Your task to perform on an android device: check data usage Image 0: 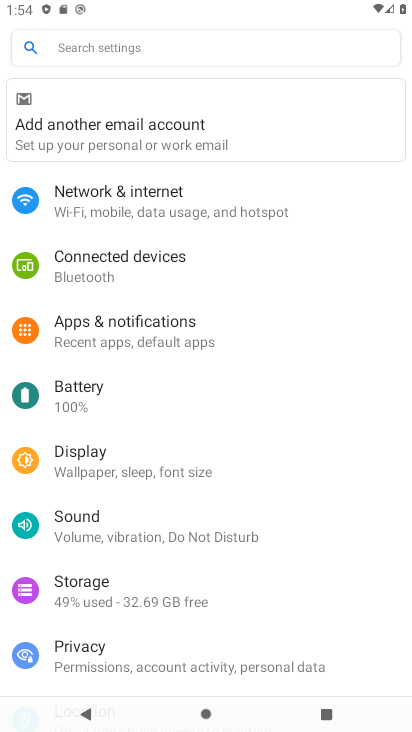
Step 0: click (161, 196)
Your task to perform on an android device: check data usage Image 1: 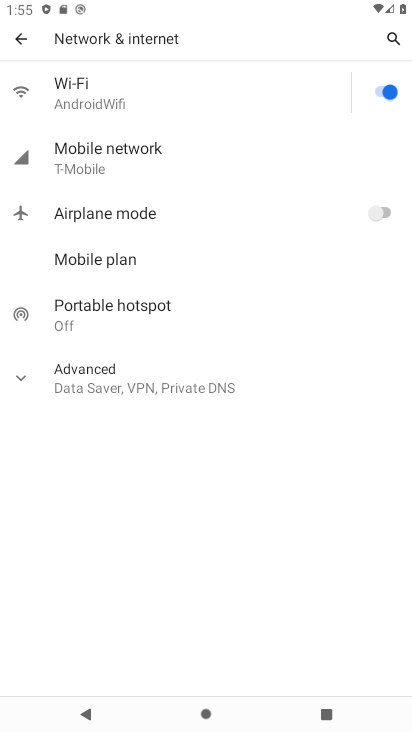
Step 1: click (113, 169)
Your task to perform on an android device: check data usage Image 2: 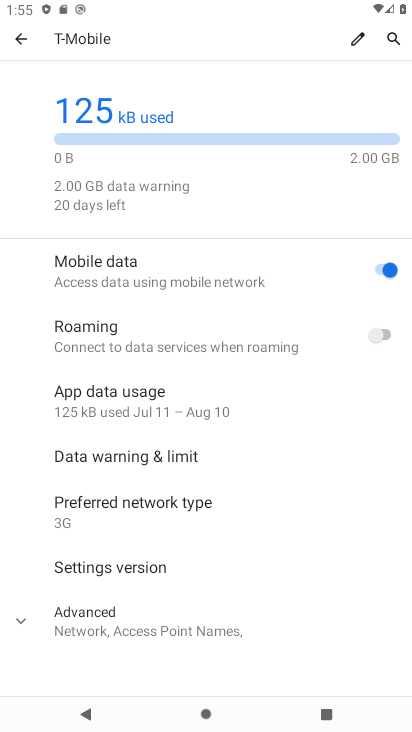
Step 2: click (172, 404)
Your task to perform on an android device: check data usage Image 3: 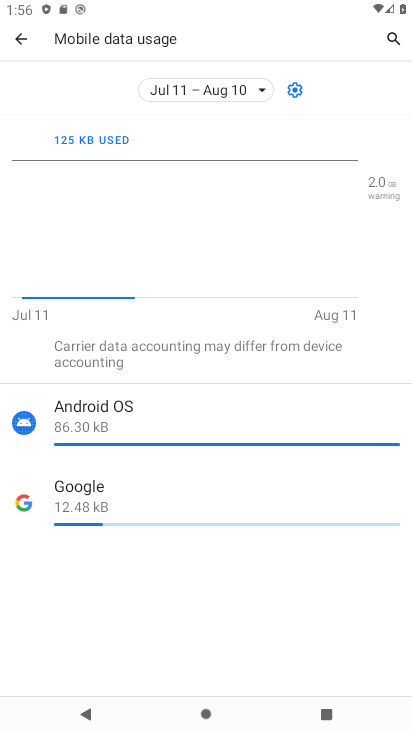
Step 3: task complete